Your task to perform on an android device: Go to ESPN.com Image 0: 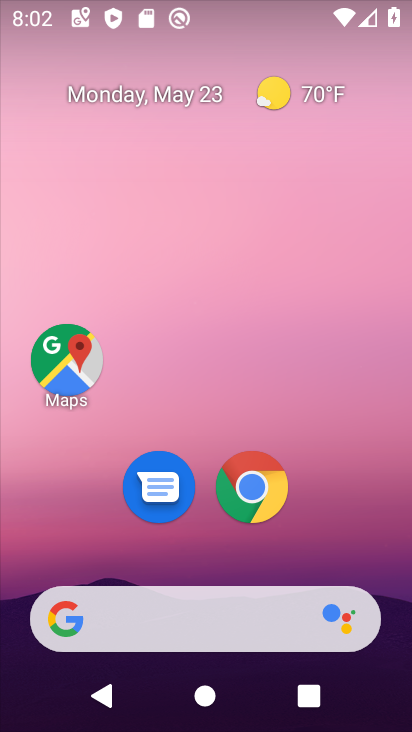
Step 0: drag from (196, 588) to (229, 218)
Your task to perform on an android device: Go to ESPN.com Image 1: 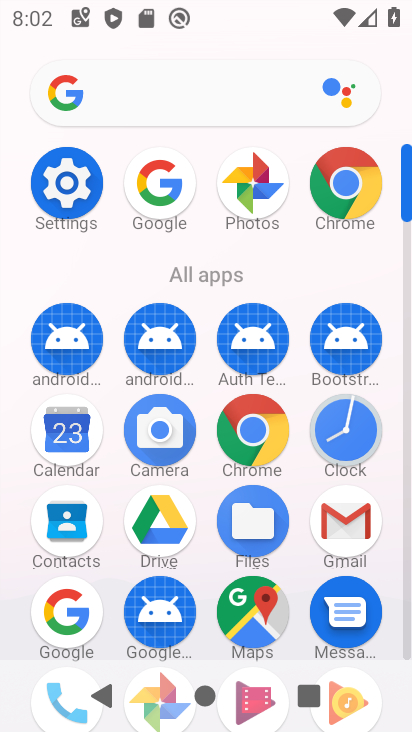
Step 1: click (64, 612)
Your task to perform on an android device: Go to ESPN.com Image 2: 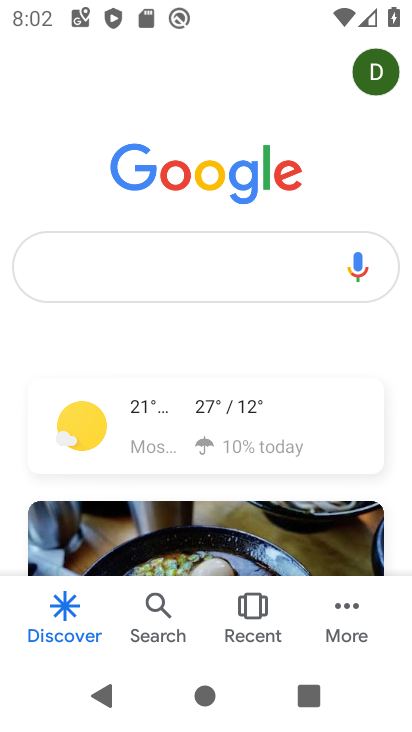
Step 2: click (136, 272)
Your task to perform on an android device: Go to ESPN.com Image 3: 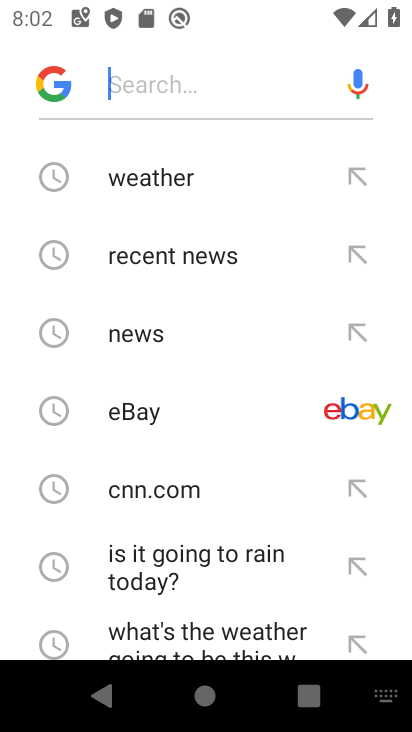
Step 3: drag from (149, 523) to (171, 228)
Your task to perform on an android device: Go to ESPN.com Image 4: 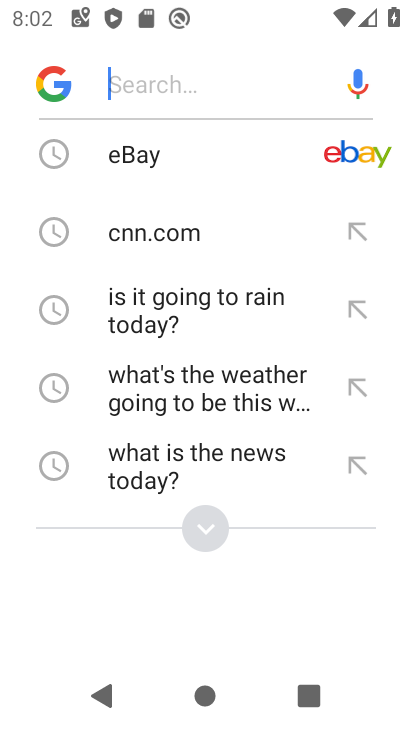
Step 4: click (194, 523)
Your task to perform on an android device: Go to ESPN.com Image 5: 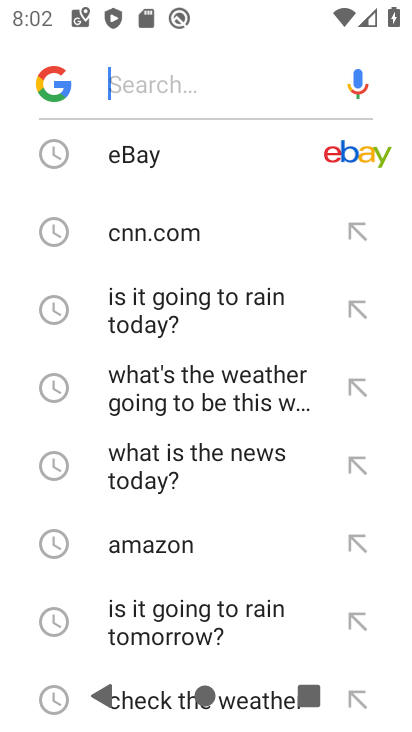
Step 5: drag from (179, 609) to (226, 236)
Your task to perform on an android device: Go to ESPN.com Image 6: 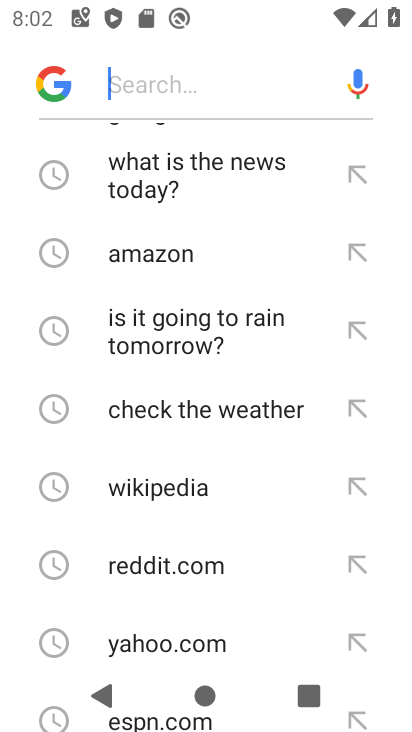
Step 6: drag from (163, 601) to (173, 315)
Your task to perform on an android device: Go to ESPN.com Image 7: 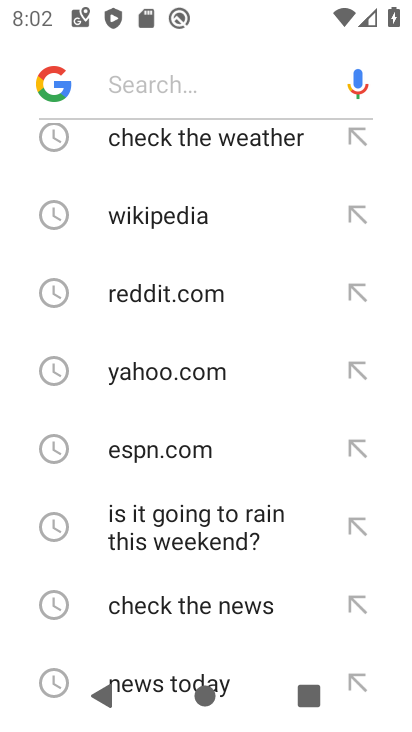
Step 7: click (152, 453)
Your task to perform on an android device: Go to ESPN.com Image 8: 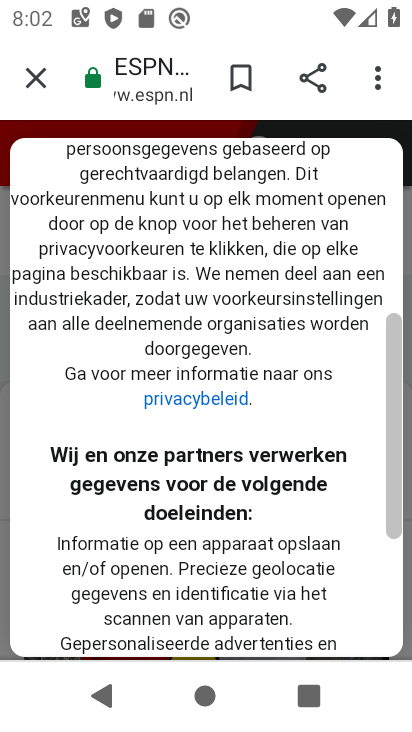
Step 8: task complete